Your task to perform on an android device: open a bookmark in the chrome app Image 0: 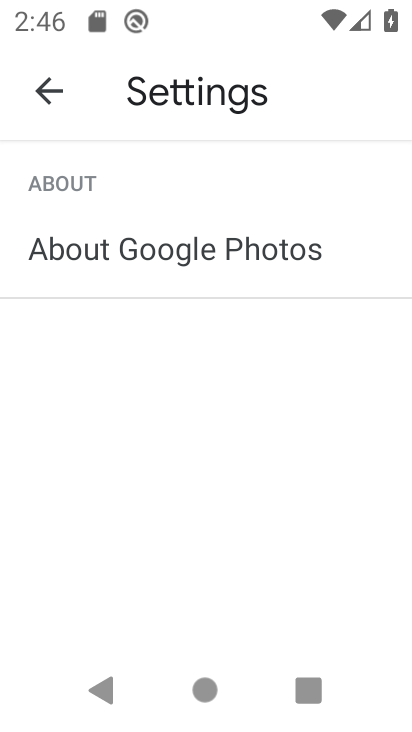
Step 0: click (264, 632)
Your task to perform on an android device: open a bookmark in the chrome app Image 1: 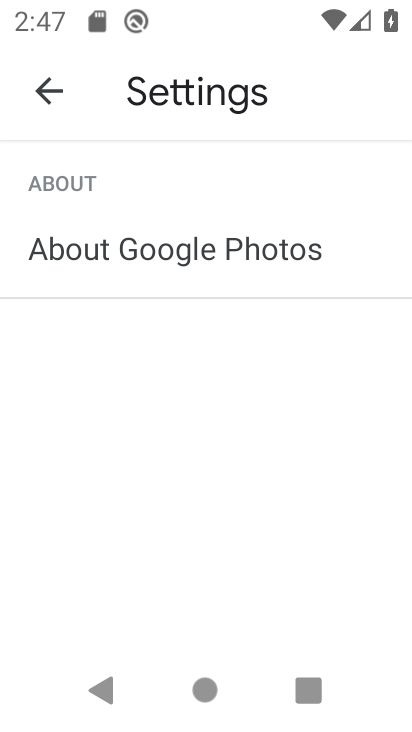
Step 1: press home button
Your task to perform on an android device: open a bookmark in the chrome app Image 2: 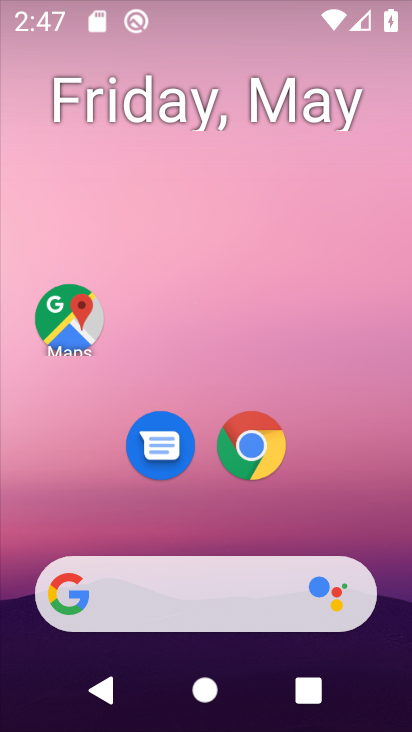
Step 2: drag from (165, 525) to (182, 149)
Your task to perform on an android device: open a bookmark in the chrome app Image 3: 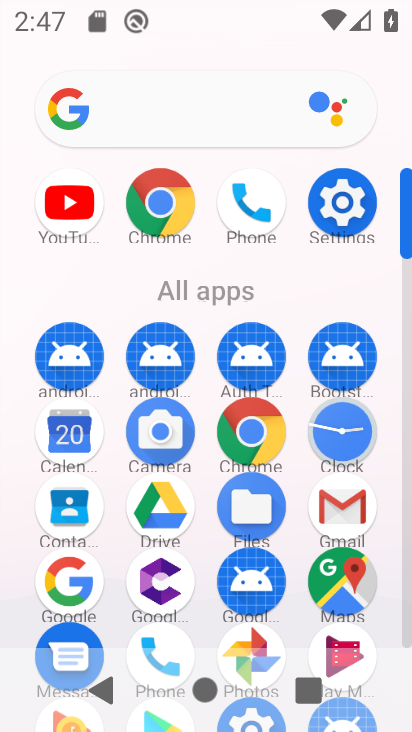
Step 3: click (255, 430)
Your task to perform on an android device: open a bookmark in the chrome app Image 4: 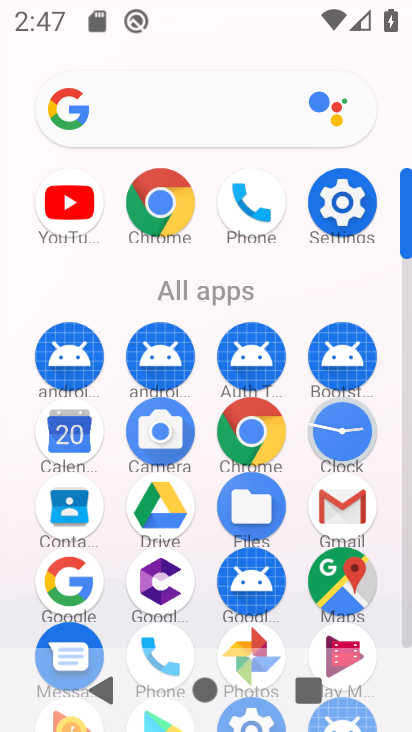
Step 4: click (255, 430)
Your task to perform on an android device: open a bookmark in the chrome app Image 5: 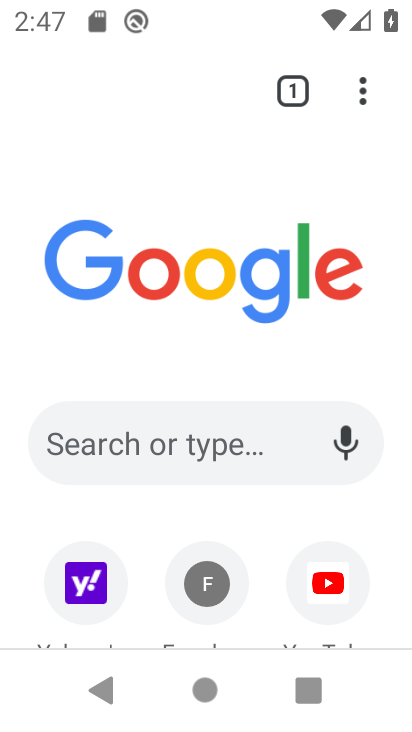
Step 5: click (364, 84)
Your task to perform on an android device: open a bookmark in the chrome app Image 6: 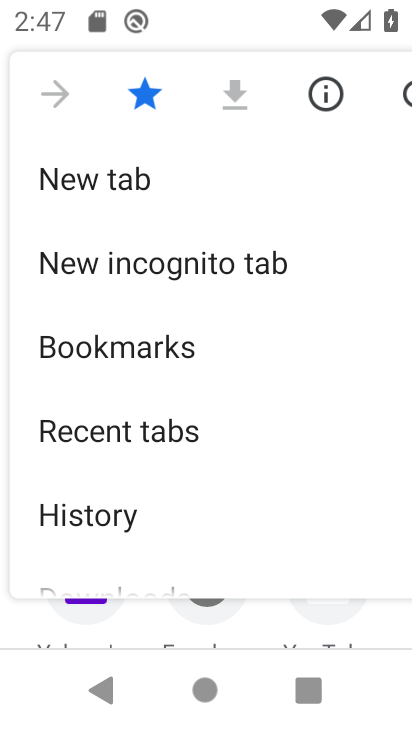
Step 6: click (132, 360)
Your task to perform on an android device: open a bookmark in the chrome app Image 7: 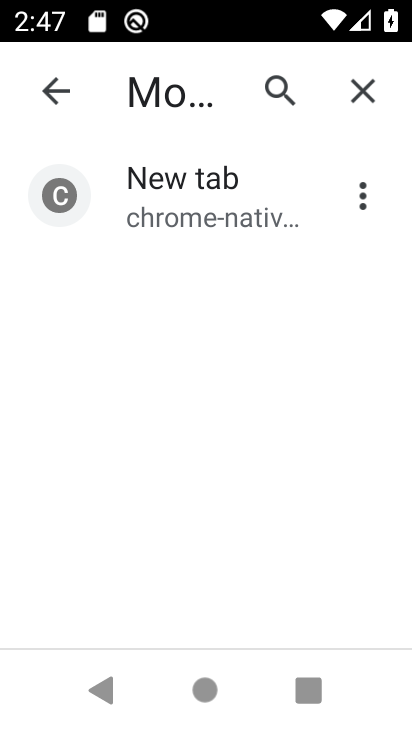
Step 7: task complete